Your task to perform on an android device: Clear the cart on ebay. Search for "dell xps" on ebay, select the first entry, add it to the cart, then select checkout. Image 0: 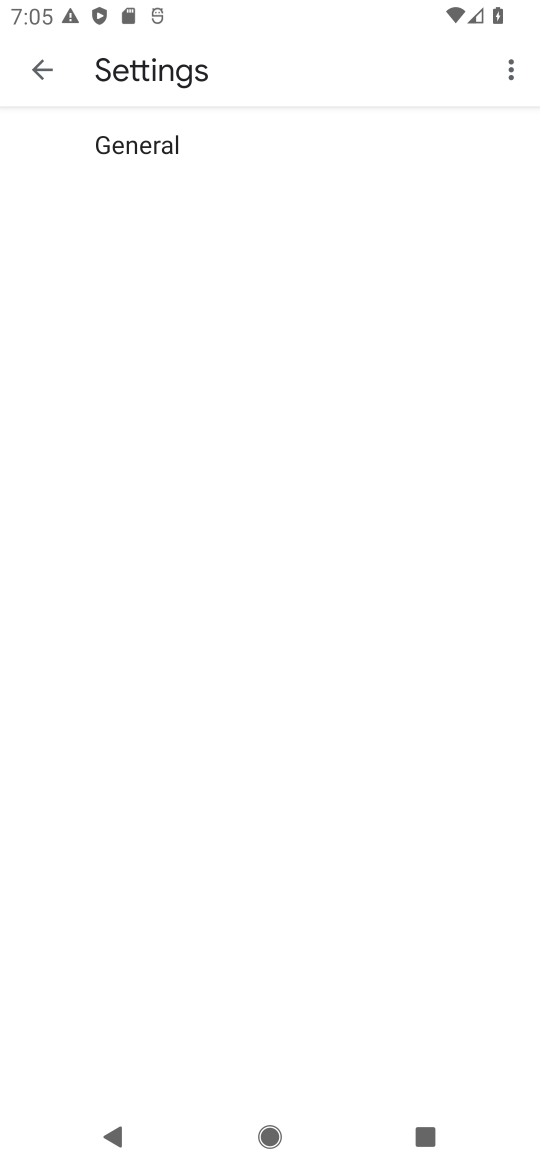
Step 0: press home button
Your task to perform on an android device: Clear the cart on ebay. Search for "dell xps" on ebay, select the first entry, add it to the cart, then select checkout. Image 1: 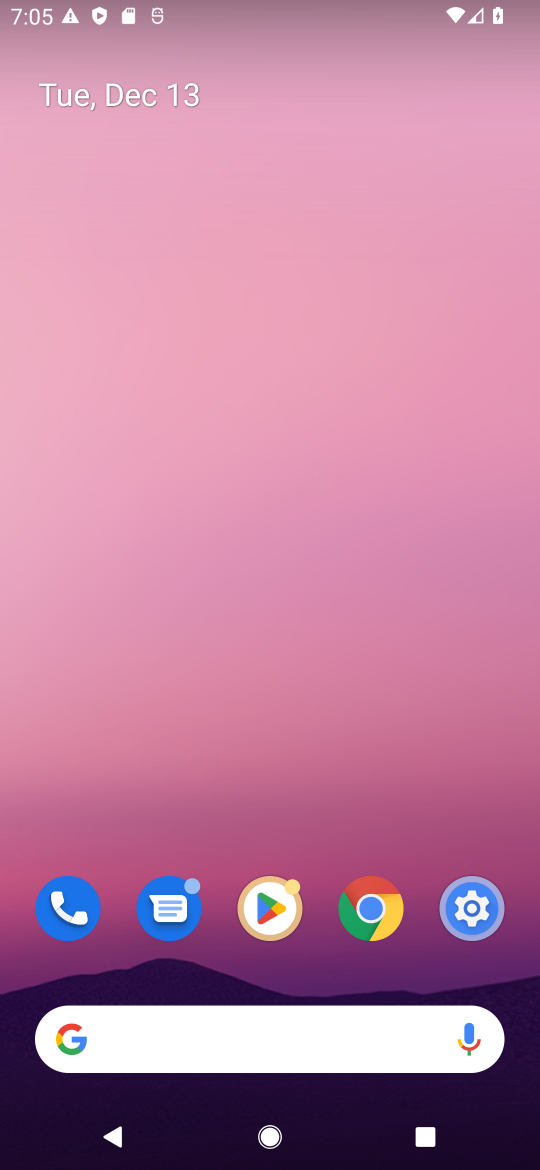
Step 1: click (106, 1023)
Your task to perform on an android device: Clear the cart on ebay. Search for "dell xps" on ebay, select the first entry, add it to the cart, then select checkout. Image 2: 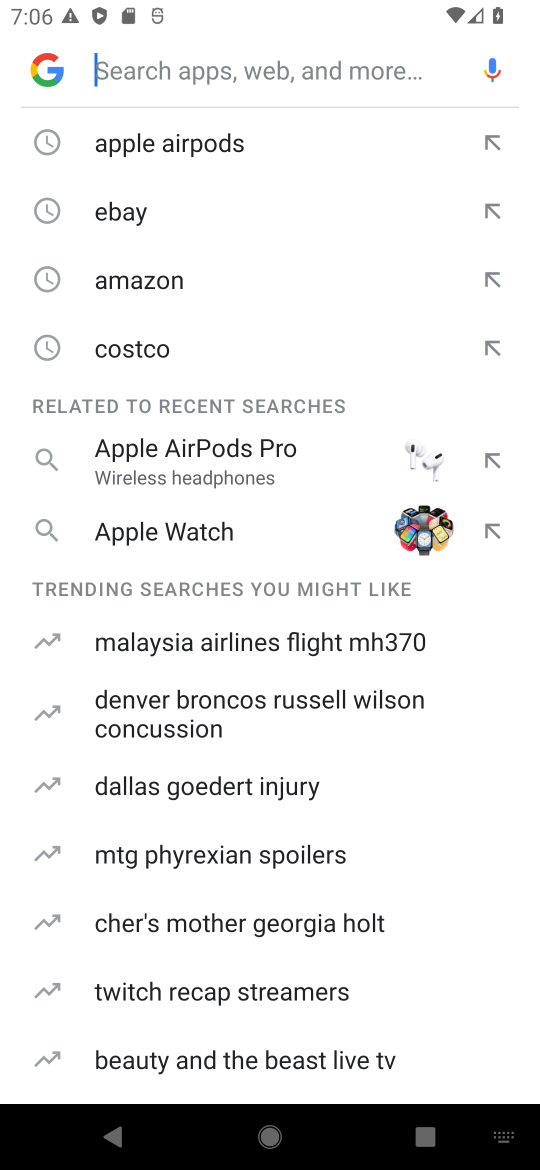
Step 2: type "ebay"
Your task to perform on an android device: Clear the cart on ebay. Search for "dell xps" on ebay, select the first entry, add it to the cart, then select checkout. Image 3: 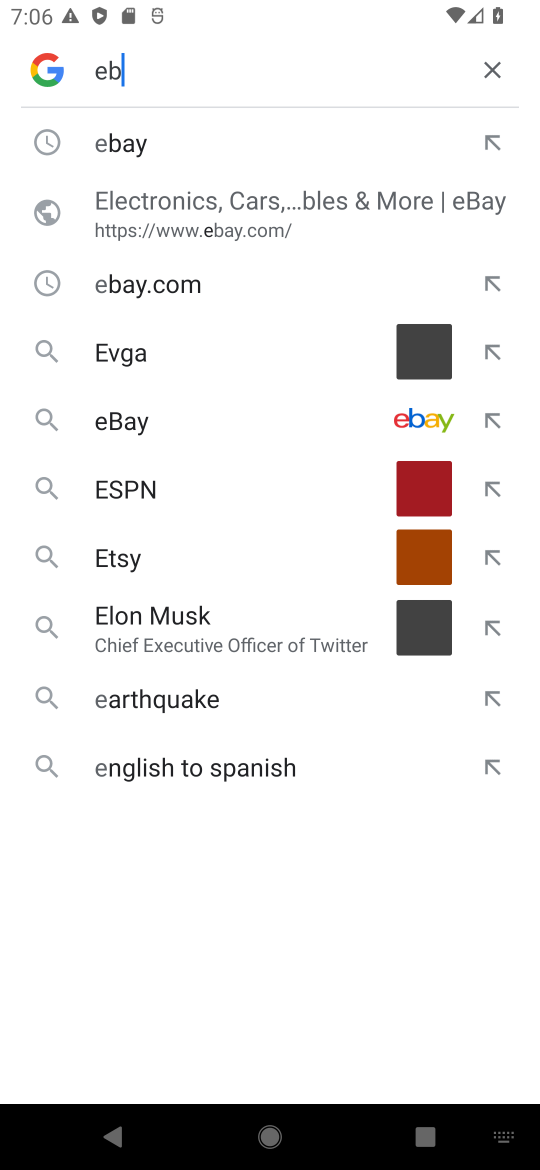
Step 3: press enter
Your task to perform on an android device: Clear the cart on ebay. Search for "dell xps" on ebay, select the first entry, add it to the cart, then select checkout. Image 4: 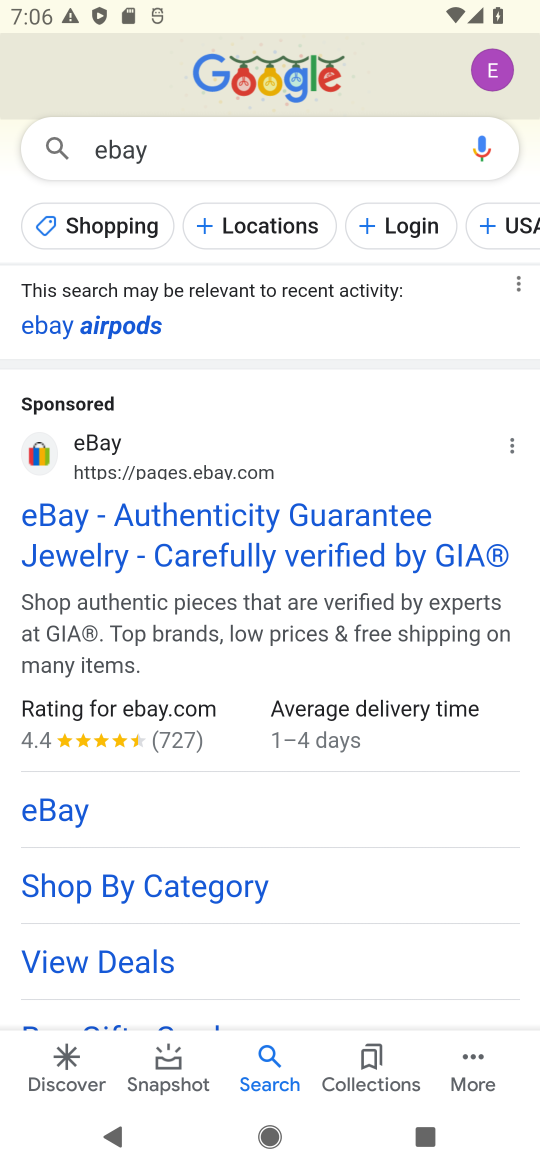
Step 4: click (221, 531)
Your task to perform on an android device: Clear the cart on ebay. Search for "dell xps" on ebay, select the first entry, add it to the cart, then select checkout. Image 5: 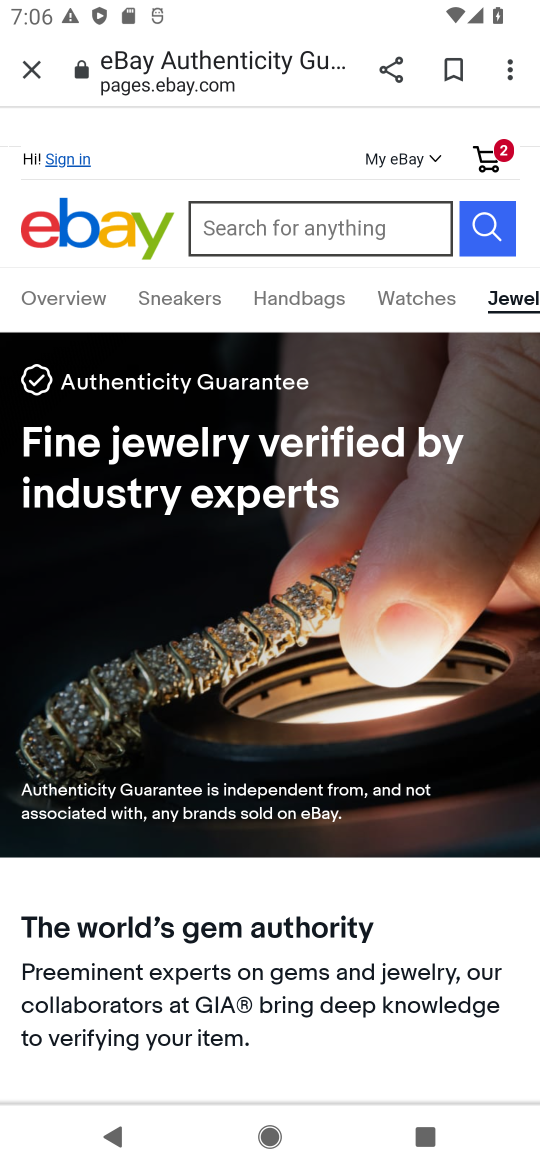
Step 5: click (328, 227)
Your task to perform on an android device: Clear the cart on ebay. Search for "dell xps" on ebay, select the first entry, add it to the cart, then select checkout. Image 6: 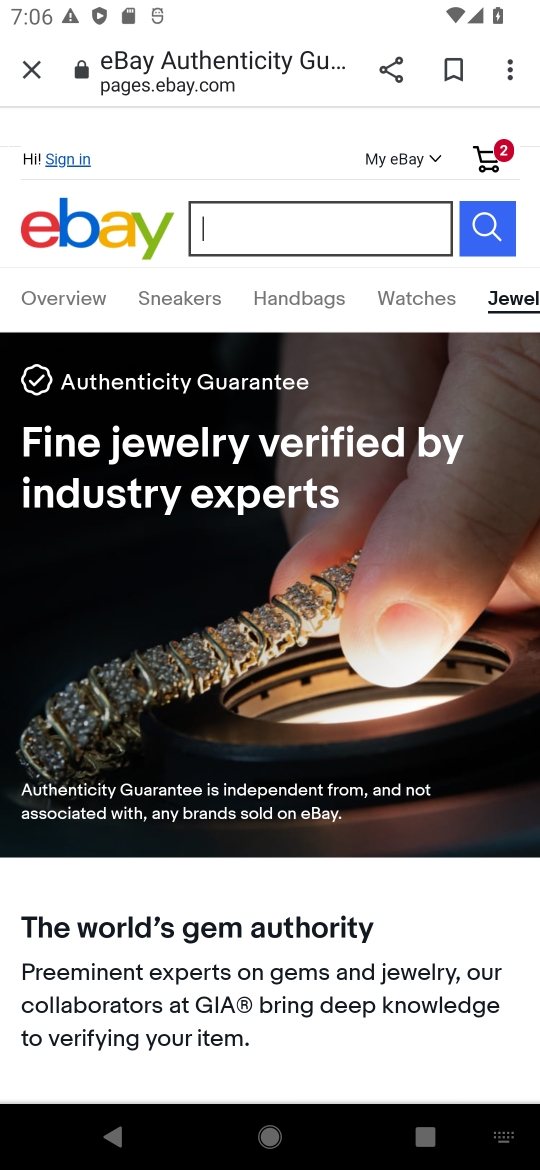
Step 6: type "dell xps"
Your task to perform on an android device: Clear the cart on ebay. Search for "dell xps" on ebay, select the first entry, add it to the cart, then select checkout. Image 7: 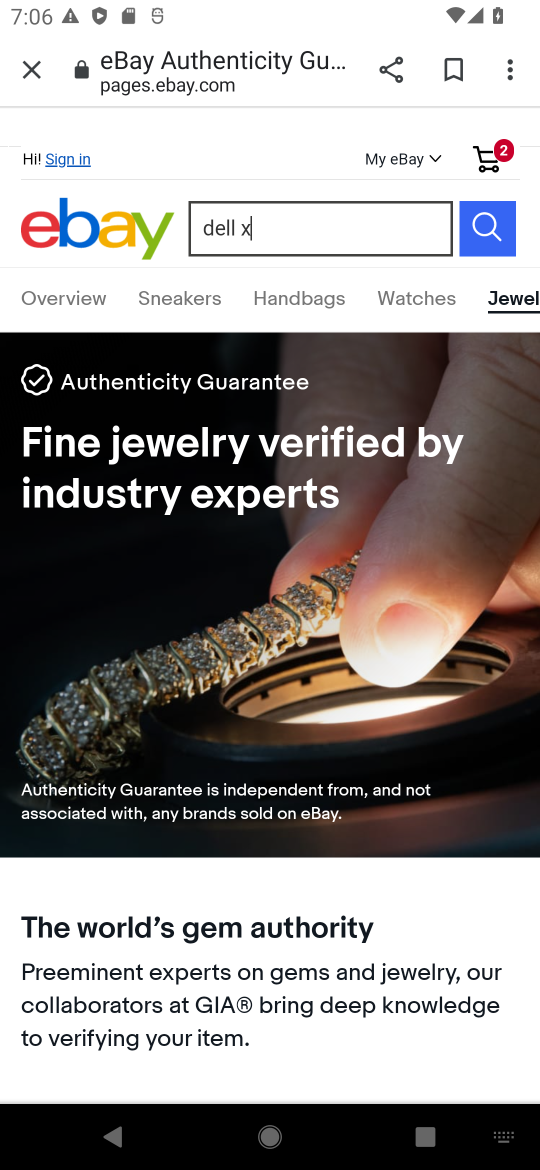
Step 7: press enter
Your task to perform on an android device: Clear the cart on ebay. Search for "dell xps" on ebay, select the first entry, add it to the cart, then select checkout. Image 8: 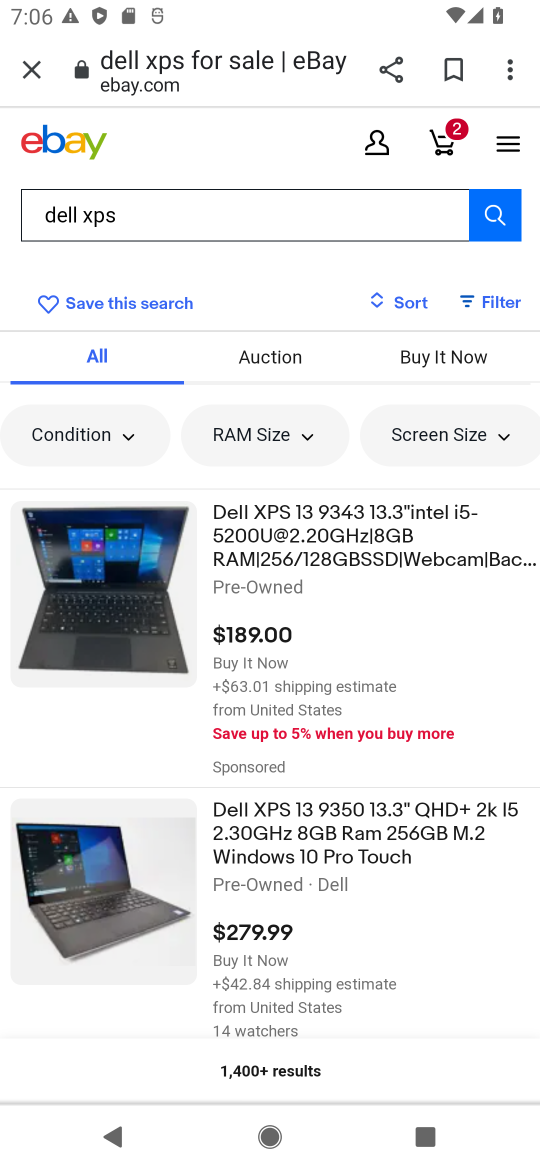
Step 8: click (241, 541)
Your task to perform on an android device: Clear the cart on ebay. Search for "dell xps" on ebay, select the first entry, add it to the cart, then select checkout. Image 9: 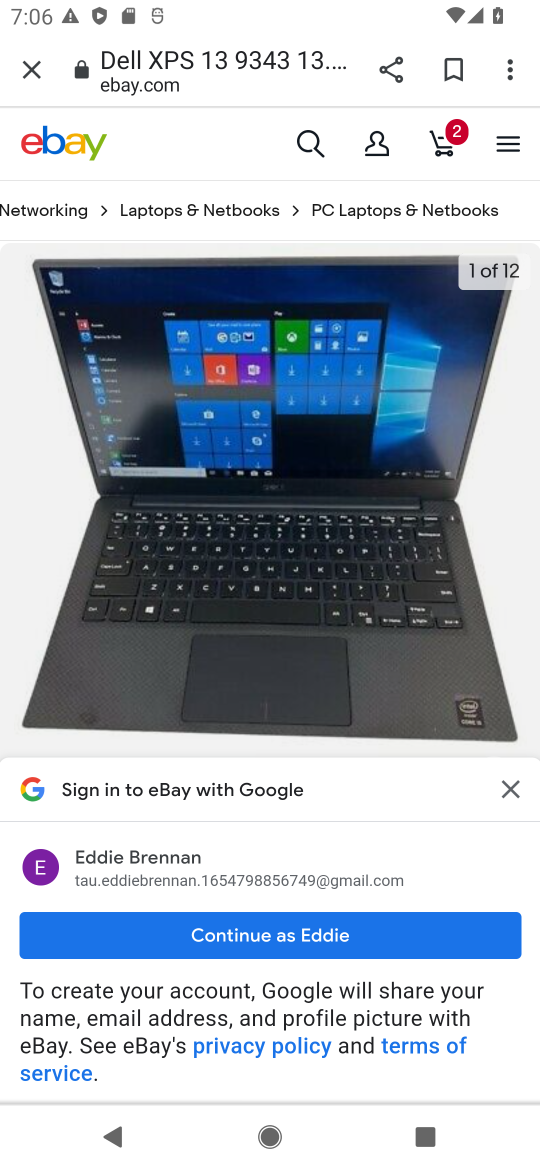
Step 9: click (511, 789)
Your task to perform on an android device: Clear the cart on ebay. Search for "dell xps" on ebay, select the first entry, add it to the cart, then select checkout. Image 10: 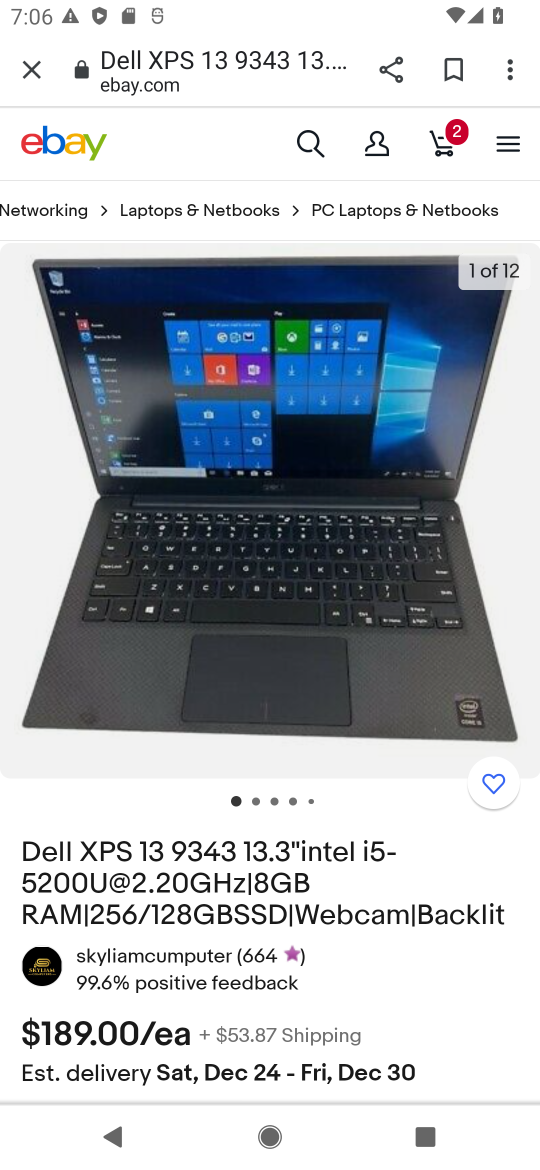
Step 10: drag from (315, 868) to (337, 416)
Your task to perform on an android device: Clear the cart on ebay. Search for "dell xps" on ebay, select the first entry, add it to the cart, then select checkout. Image 11: 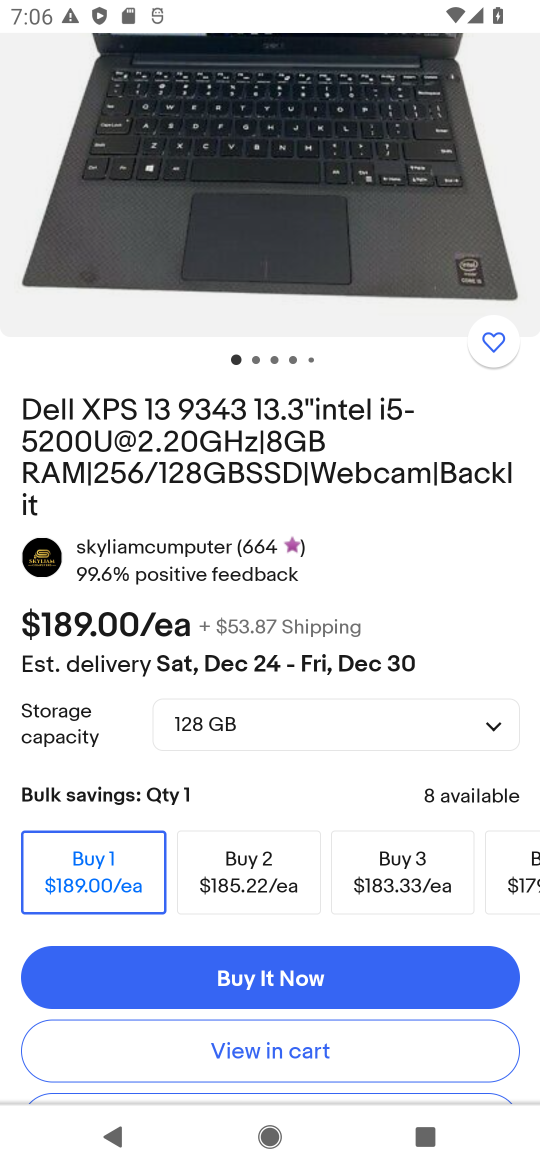
Step 11: drag from (309, 998) to (335, 398)
Your task to perform on an android device: Clear the cart on ebay. Search for "dell xps" on ebay, select the first entry, add it to the cart, then select checkout. Image 12: 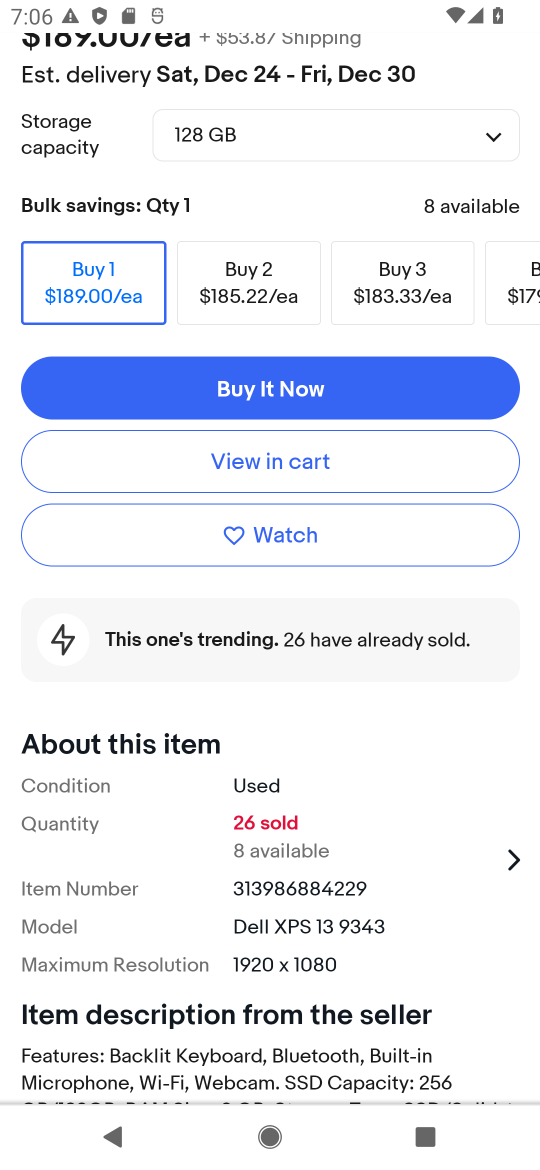
Step 12: click (254, 460)
Your task to perform on an android device: Clear the cart on ebay. Search for "dell xps" on ebay, select the first entry, add it to the cart, then select checkout. Image 13: 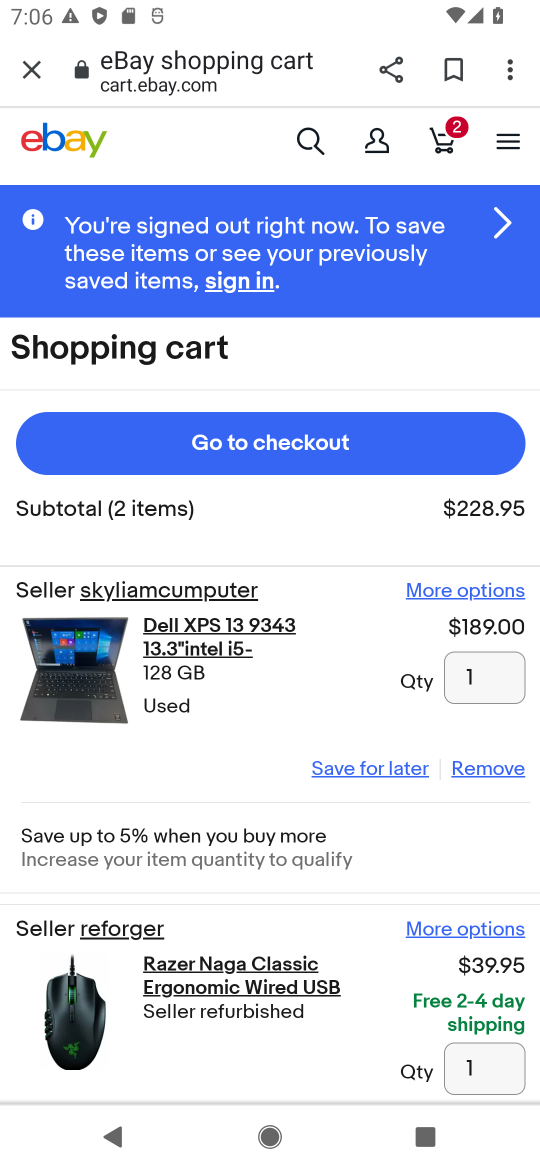
Step 13: click (319, 445)
Your task to perform on an android device: Clear the cart on ebay. Search for "dell xps" on ebay, select the first entry, add it to the cart, then select checkout. Image 14: 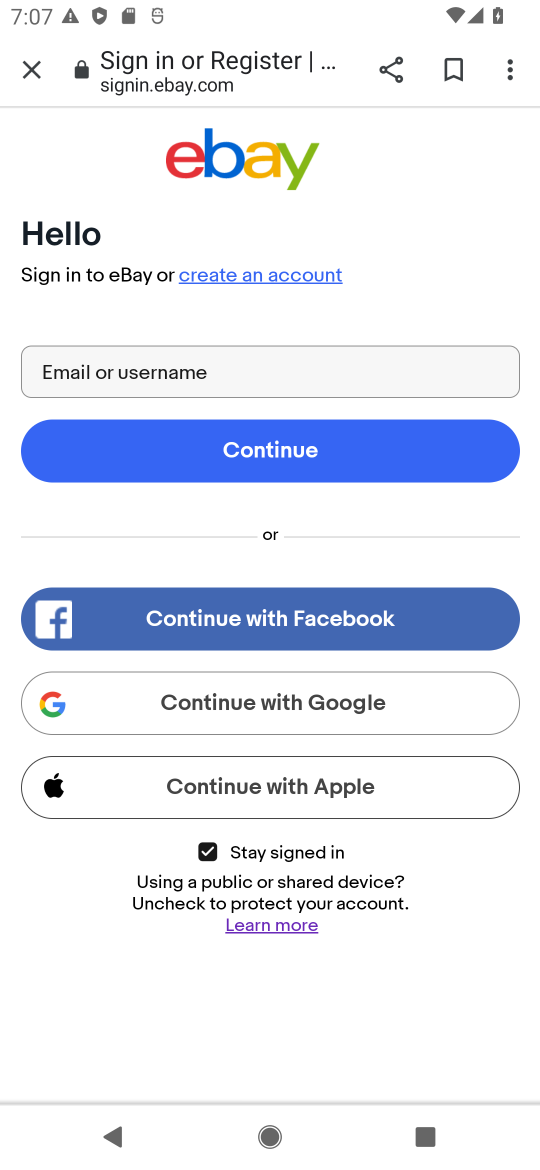
Step 14: task complete